Your task to perform on an android device: Open Google Image 0: 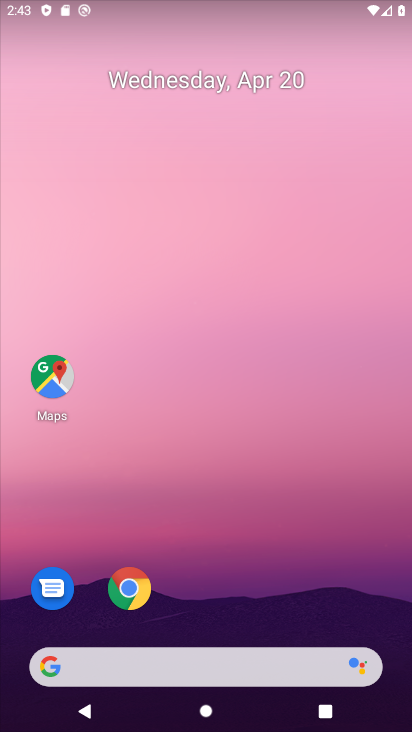
Step 0: drag from (303, 599) to (272, 2)
Your task to perform on an android device: Open Google Image 1: 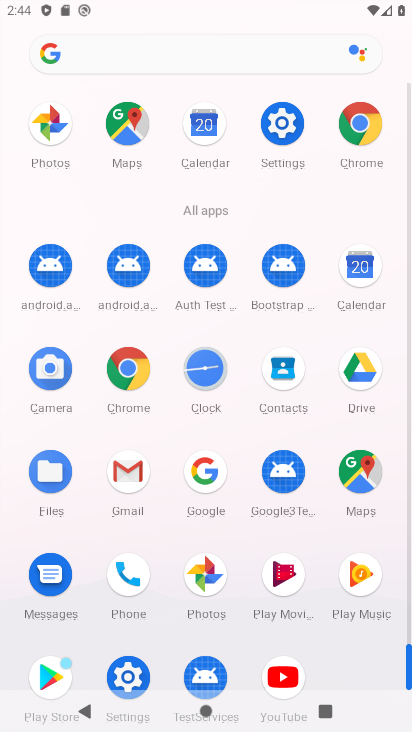
Step 1: click (132, 395)
Your task to perform on an android device: Open Google Image 2: 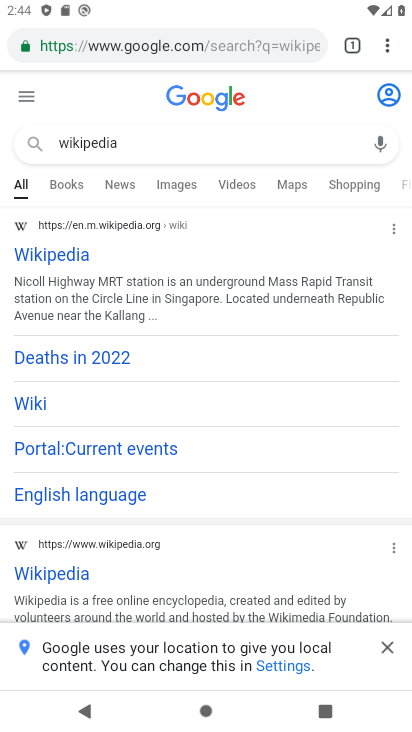
Step 2: click (377, 46)
Your task to perform on an android device: Open Google Image 3: 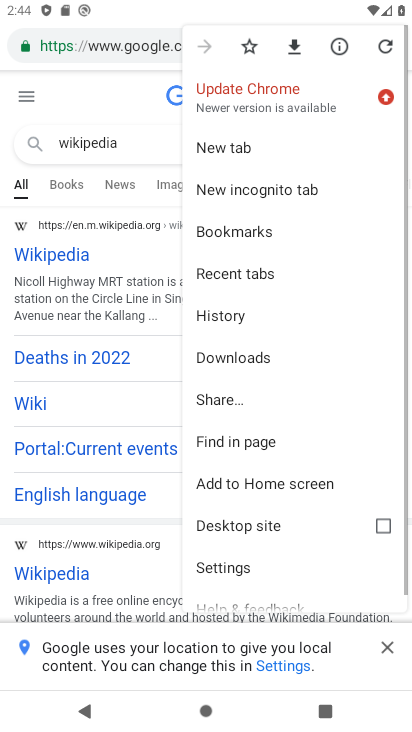
Step 3: click (247, 149)
Your task to perform on an android device: Open Google Image 4: 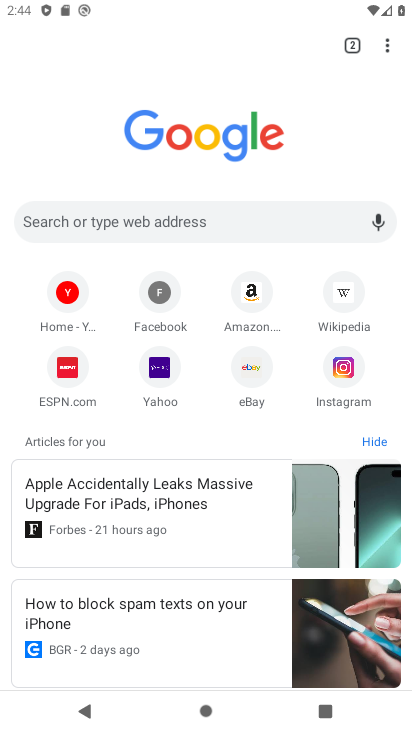
Step 4: task complete